Your task to perform on an android device: toggle pop-ups in chrome Image 0: 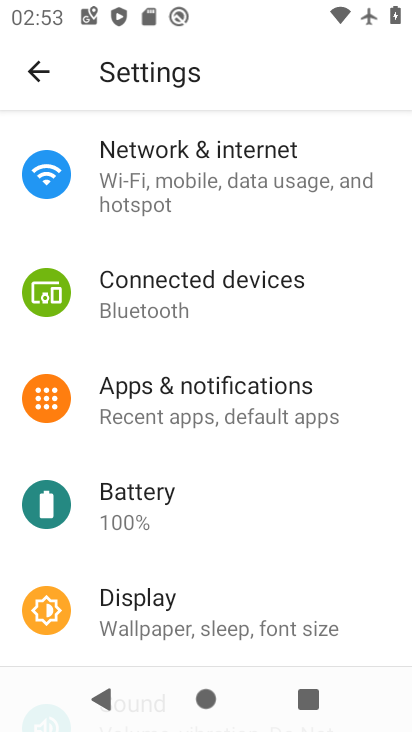
Step 0: press home button
Your task to perform on an android device: toggle pop-ups in chrome Image 1: 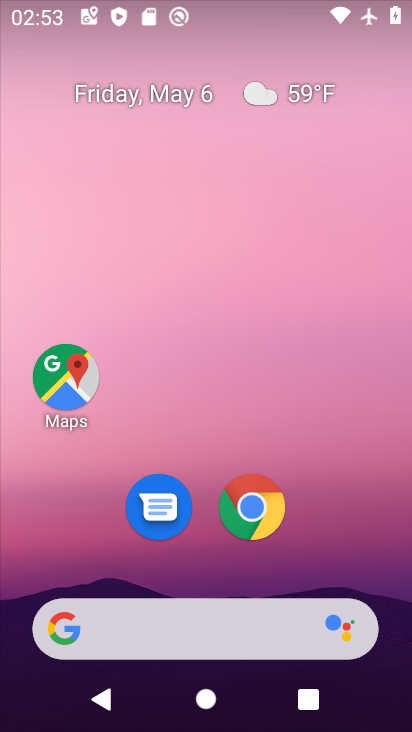
Step 1: click (259, 513)
Your task to perform on an android device: toggle pop-ups in chrome Image 2: 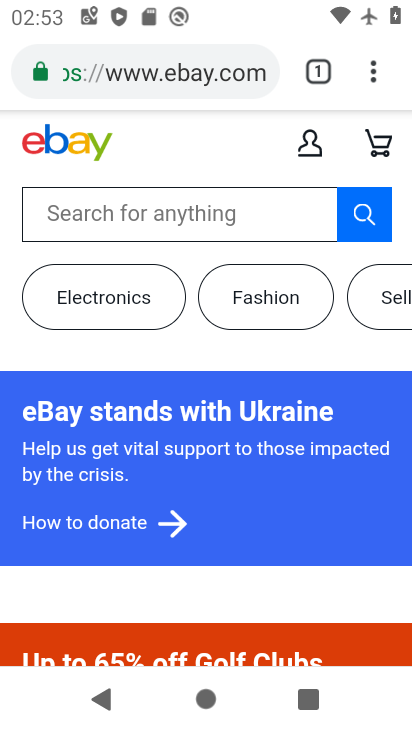
Step 2: drag from (371, 79) to (219, 503)
Your task to perform on an android device: toggle pop-ups in chrome Image 3: 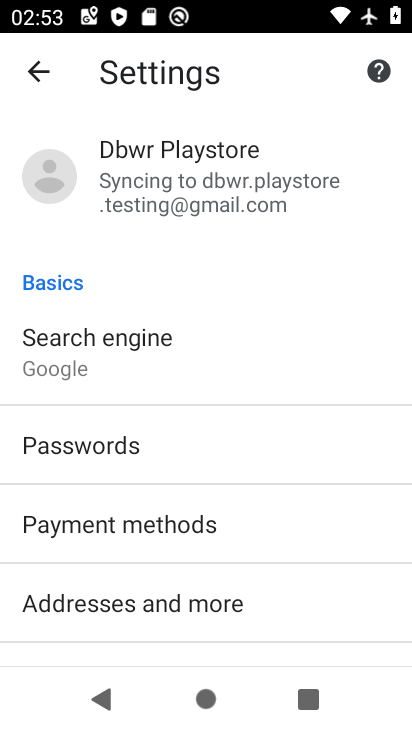
Step 3: drag from (208, 575) to (205, 260)
Your task to perform on an android device: toggle pop-ups in chrome Image 4: 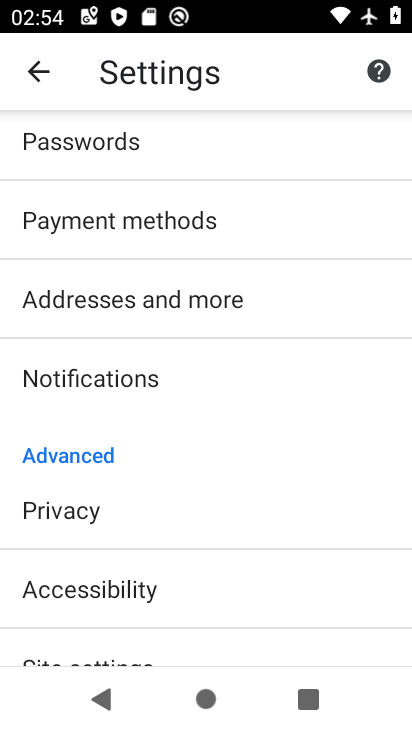
Step 4: drag from (143, 603) to (119, 322)
Your task to perform on an android device: toggle pop-ups in chrome Image 5: 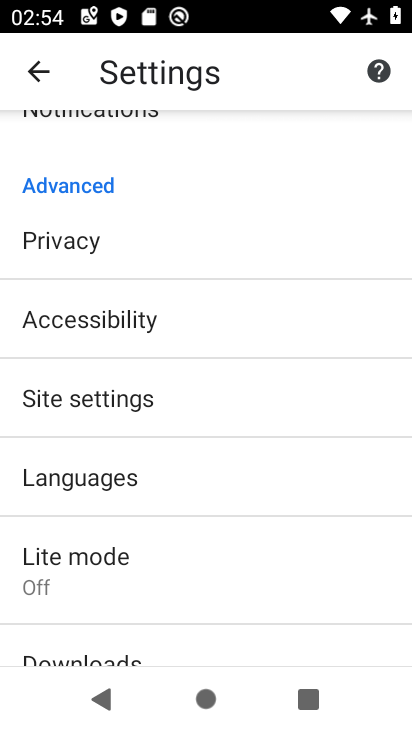
Step 5: click (129, 400)
Your task to perform on an android device: toggle pop-ups in chrome Image 6: 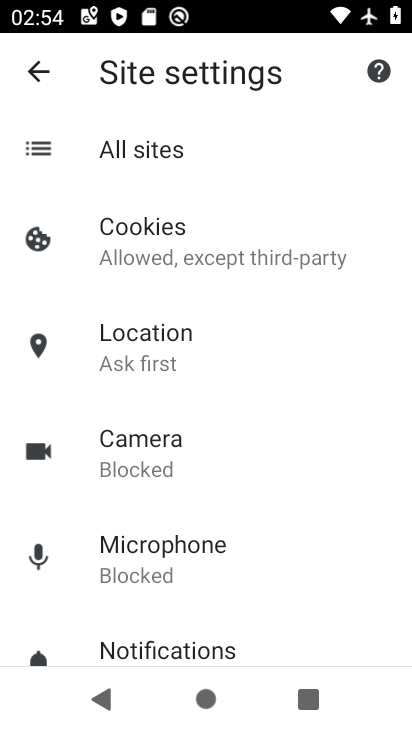
Step 6: drag from (230, 592) to (225, 310)
Your task to perform on an android device: toggle pop-ups in chrome Image 7: 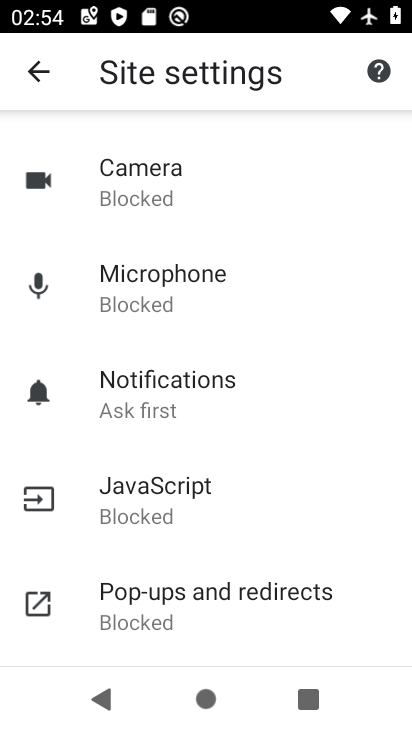
Step 7: click (234, 605)
Your task to perform on an android device: toggle pop-ups in chrome Image 8: 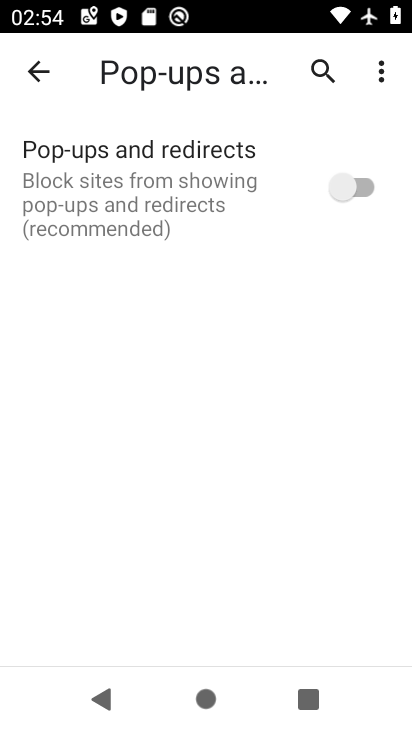
Step 8: click (355, 192)
Your task to perform on an android device: toggle pop-ups in chrome Image 9: 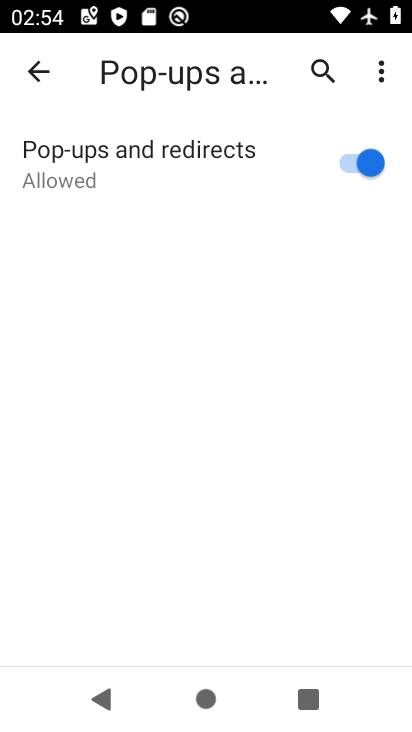
Step 9: task complete